Your task to perform on an android device: Show me the alarms in the clock app Image 0: 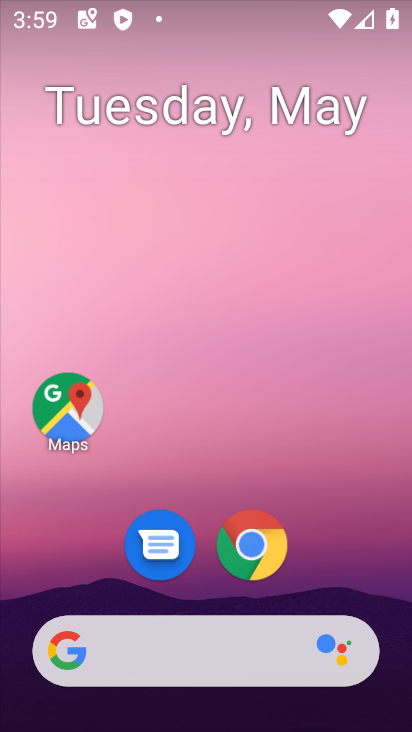
Step 0: drag from (342, 547) to (236, 76)
Your task to perform on an android device: Show me the alarms in the clock app Image 1: 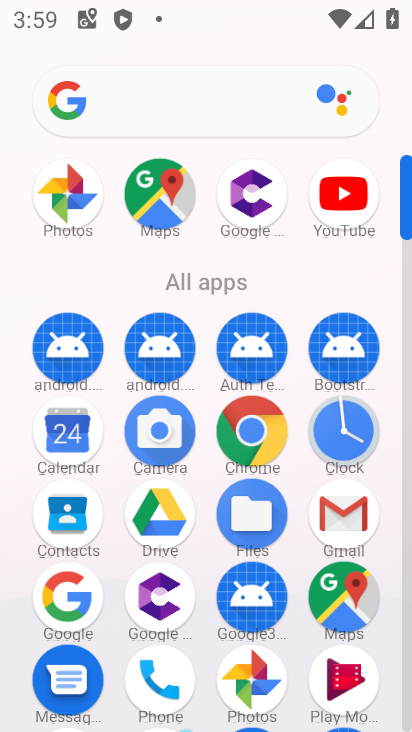
Step 1: click (345, 428)
Your task to perform on an android device: Show me the alarms in the clock app Image 2: 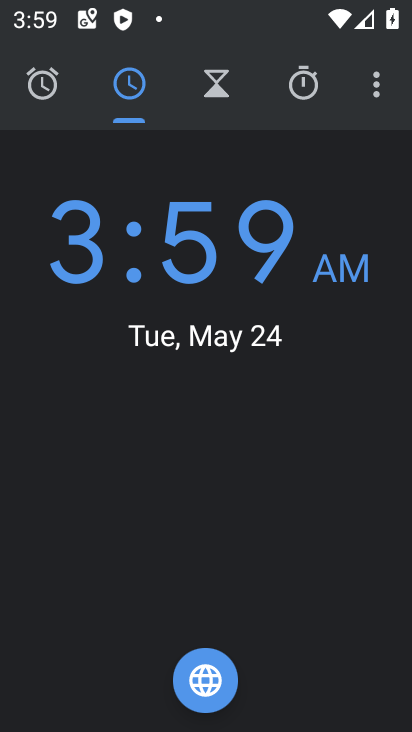
Step 2: click (44, 79)
Your task to perform on an android device: Show me the alarms in the clock app Image 3: 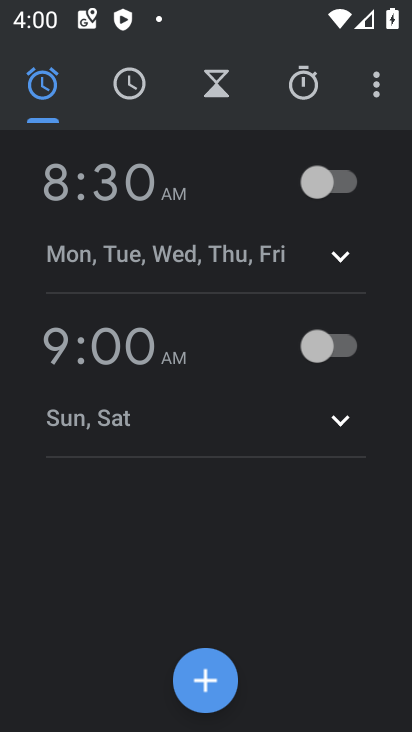
Step 3: task complete